Your task to perform on an android device: turn pop-ups on in chrome Image 0: 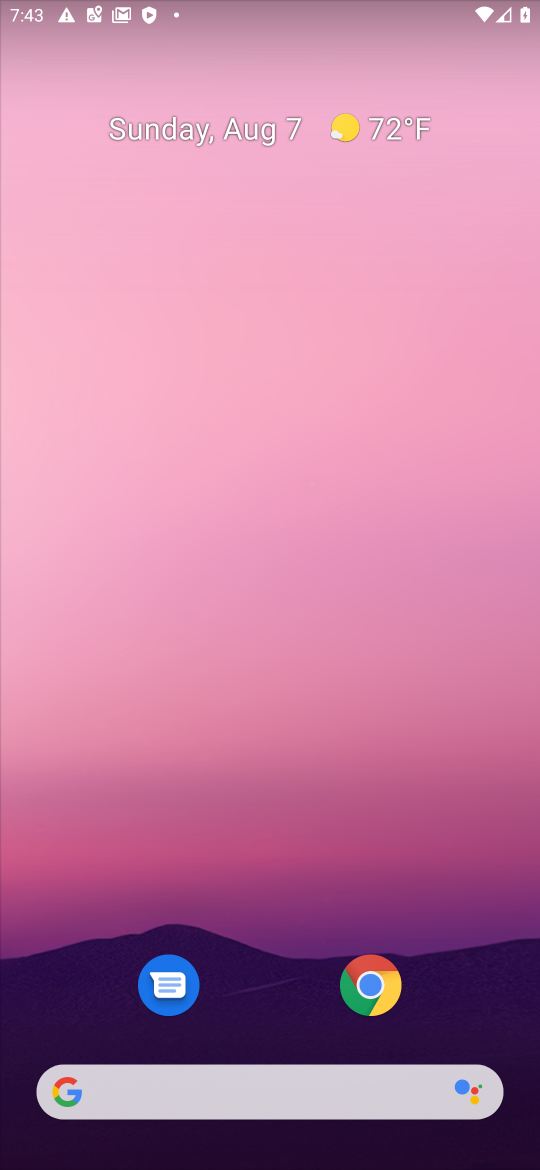
Step 0: drag from (288, 993) to (419, 327)
Your task to perform on an android device: turn pop-ups on in chrome Image 1: 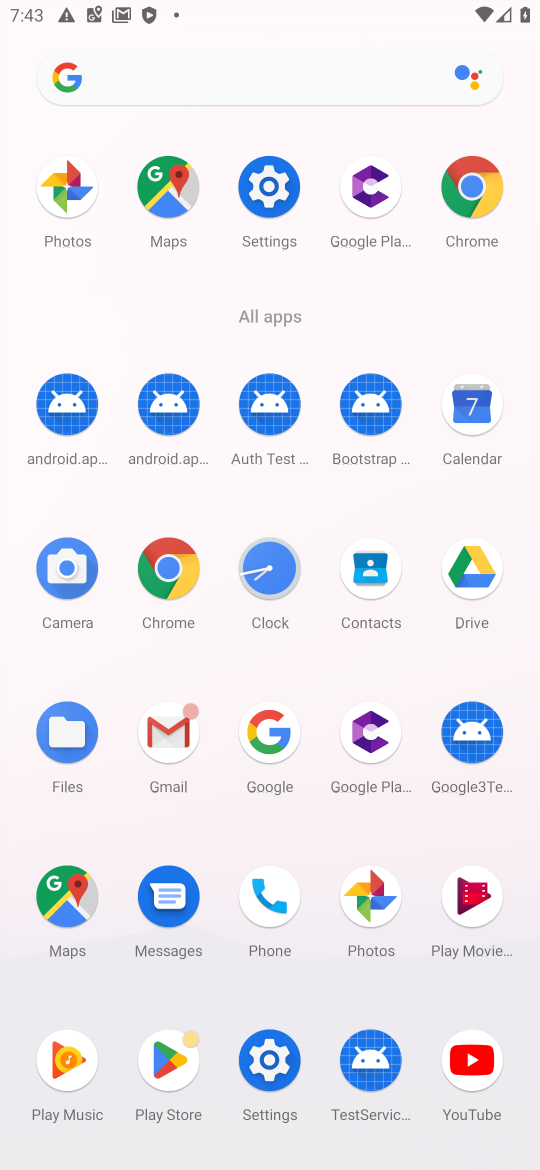
Step 1: click (462, 179)
Your task to perform on an android device: turn pop-ups on in chrome Image 2: 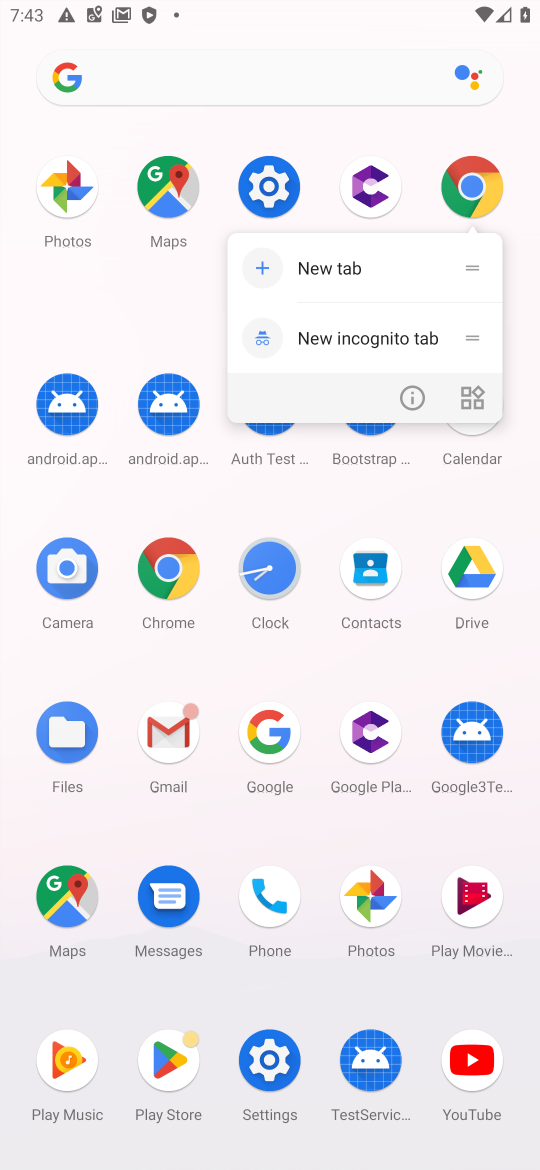
Step 2: click (462, 179)
Your task to perform on an android device: turn pop-ups on in chrome Image 3: 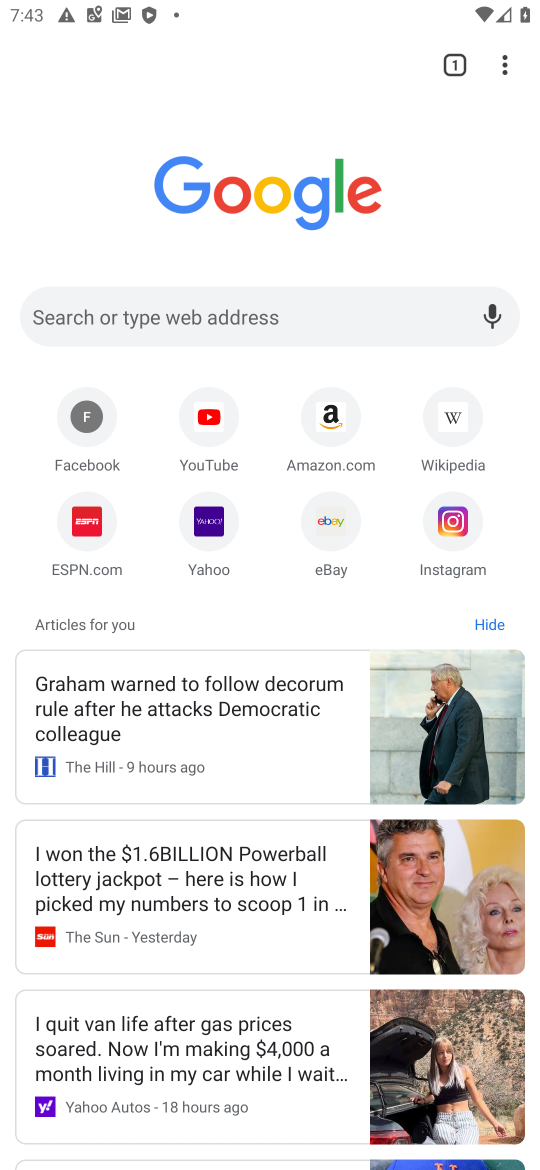
Step 3: click (521, 68)
Your task to perform on an android device: turn pop-ups on in chrome Image 4: 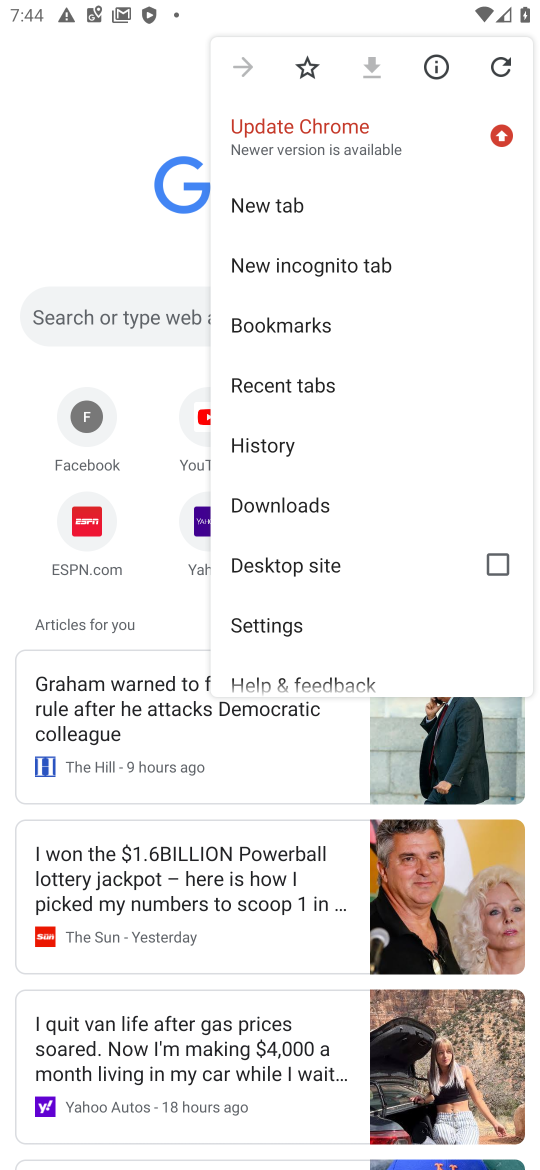
Step 4: click (257, 628)
Your task to perform on an android device: turn pop-ups on in chrome Image 5: 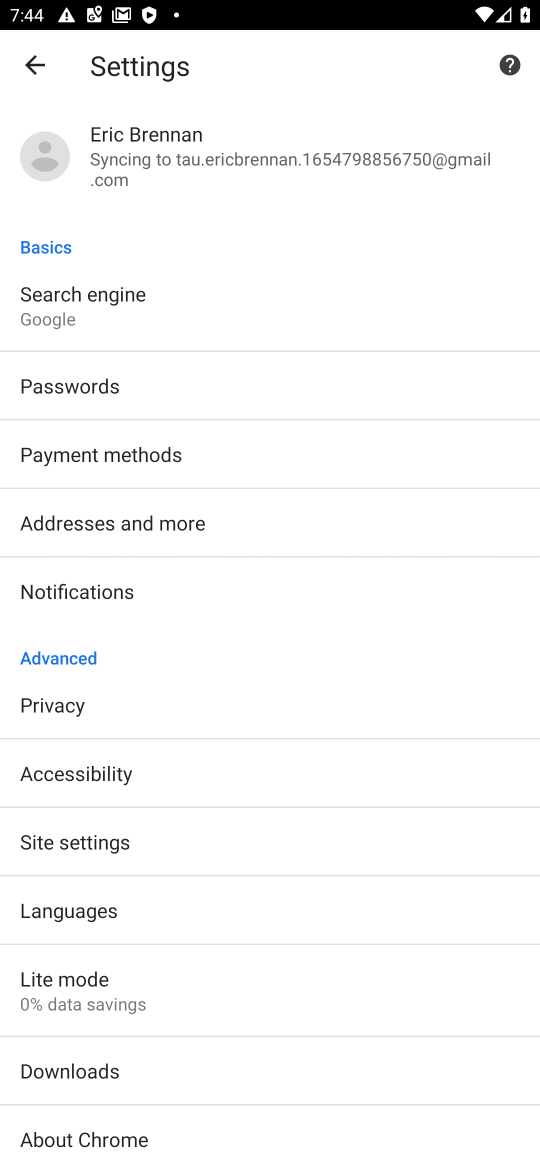
Step 5: drag from (212, 1038) to (363, 596)
Your task to perform on an android device: turn pop-ups on in chrome Image 6: 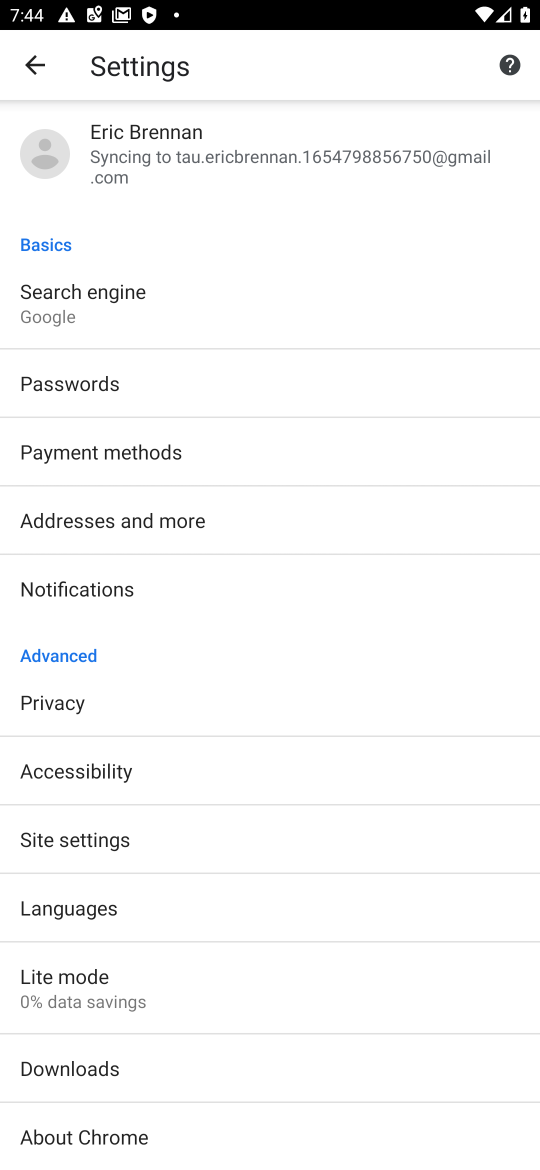
Step 6: click (122, 823)
Your task to perform on an android device: turn pop-ups on in chrome Image 7: 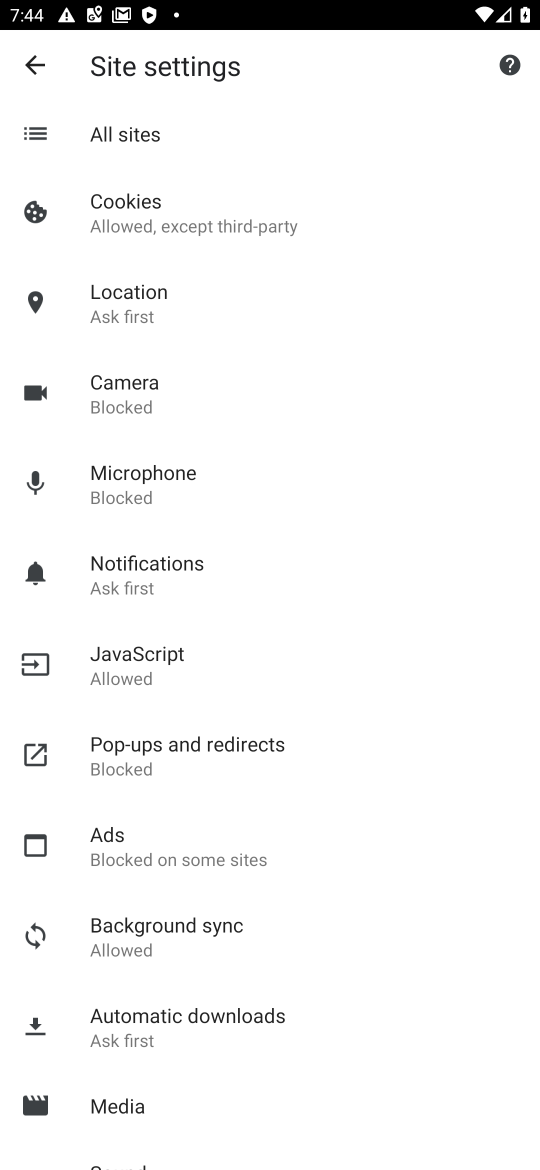
Step 7: click (216, 742)
Your task to perform on an android device: turn pop-ups on in chrome Image 8: 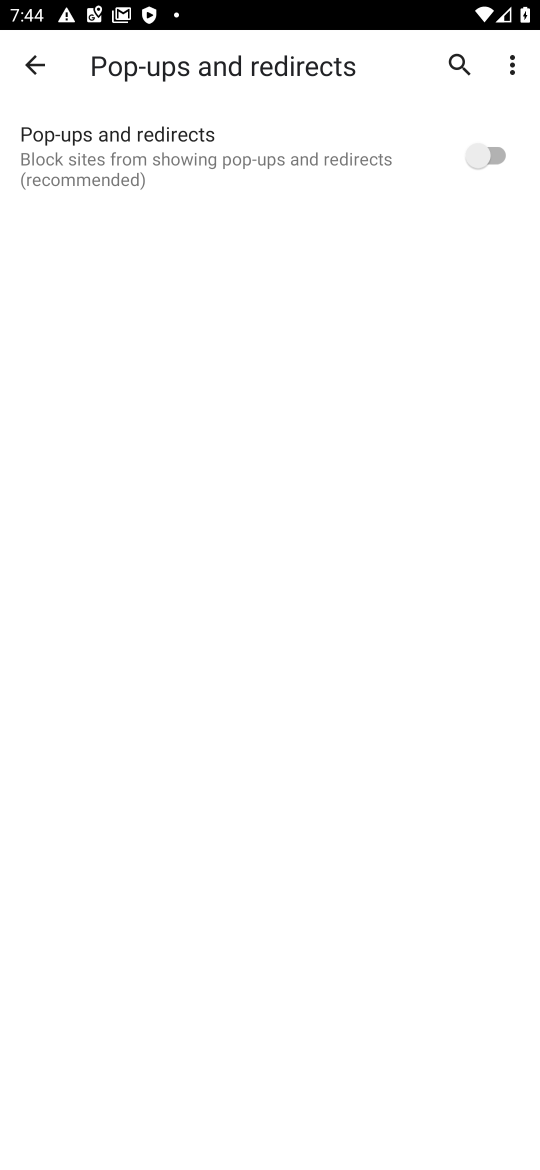
Step 8: click (484, 156)
Your task to perform on an android device: turn pop-ups on in chrome Image 9: 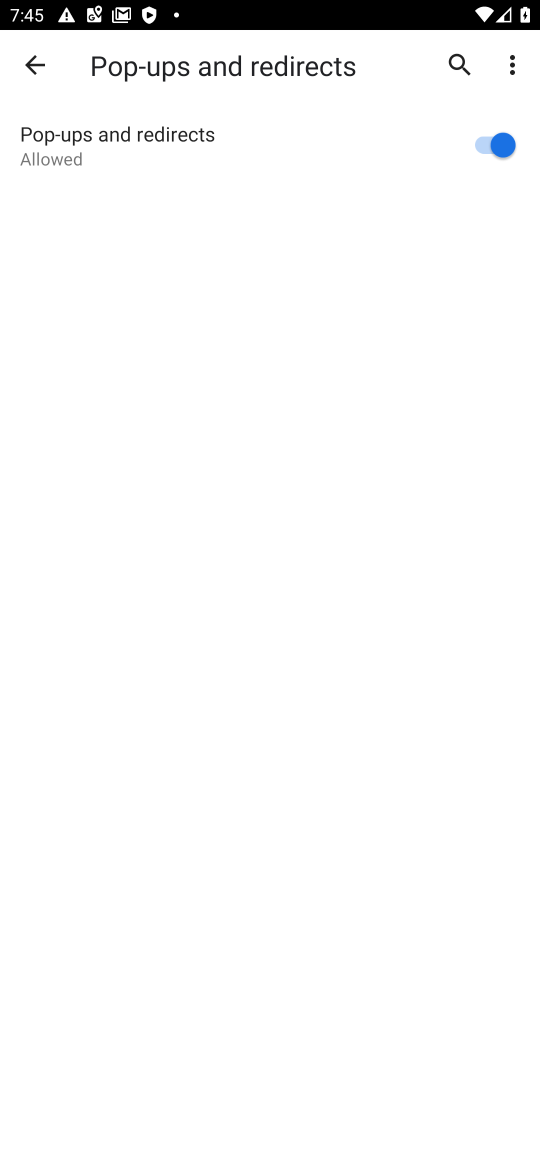
Step 9: task complete